Your task to perform on an android device: View the shopping cart on ebay.com. Search for "acer predator" on ebay.com, select the first entry, add it to the cart, then select checkout. Image 0: 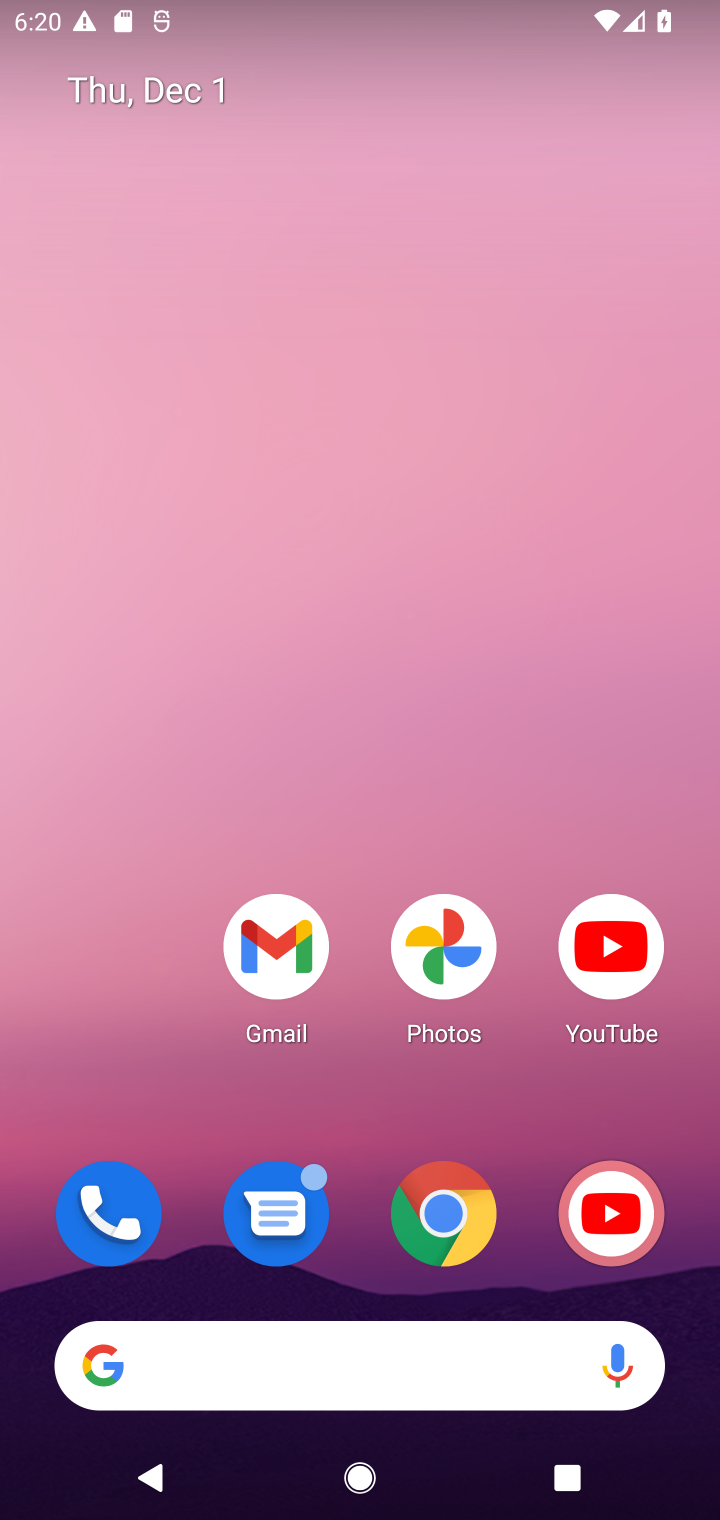
Step 0: click (407, 1351)
Your task to perform on an android device: View the shopping cart on ebay.com. Search for "acer predator" on ebay.com, select the first entry, add it to the cart, then select checkout. Image 1: 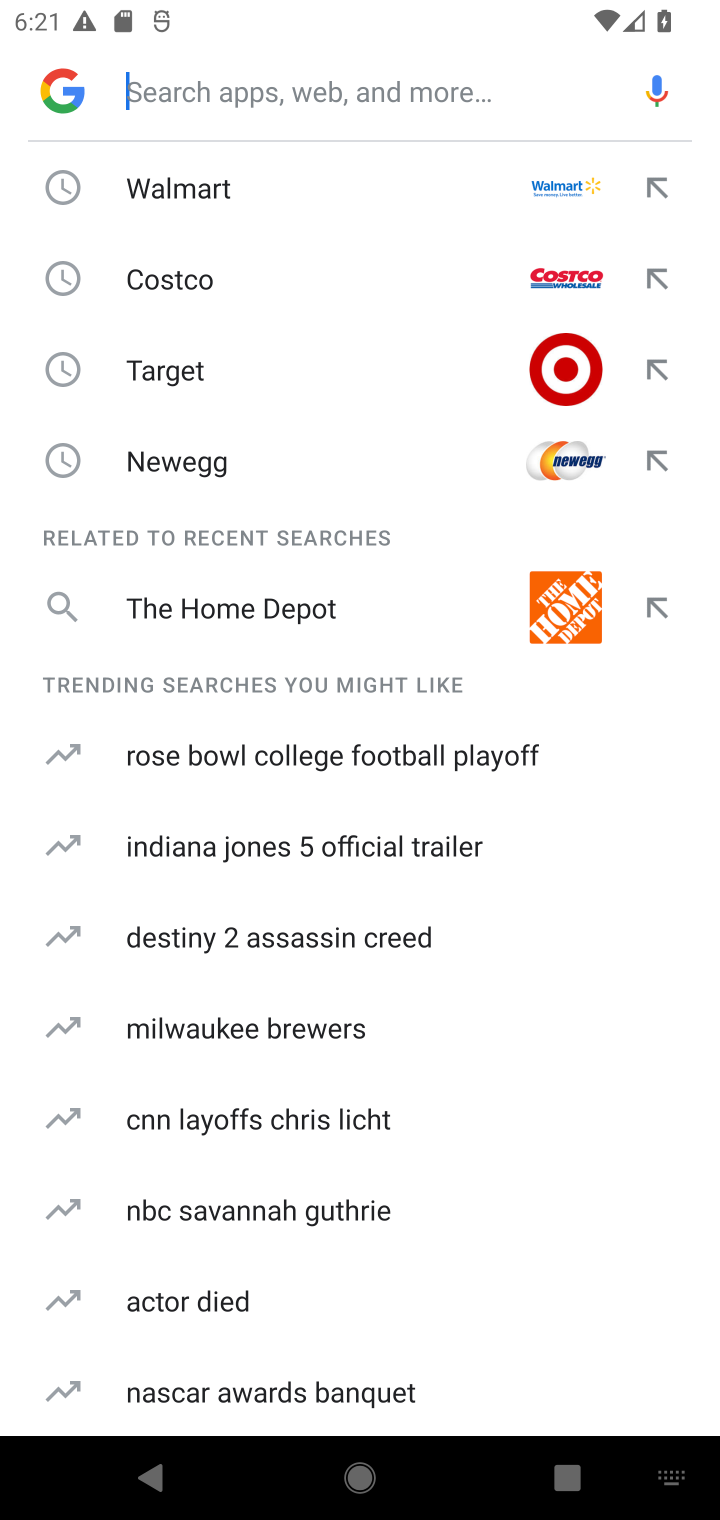
Step 1: type "ebay"
Your task to perform on an android device: View the shopping cart on ebay.com. Search for "acer predator" on ebay.com, select the first entry, add it to the cart, then select checkout. Image 2: 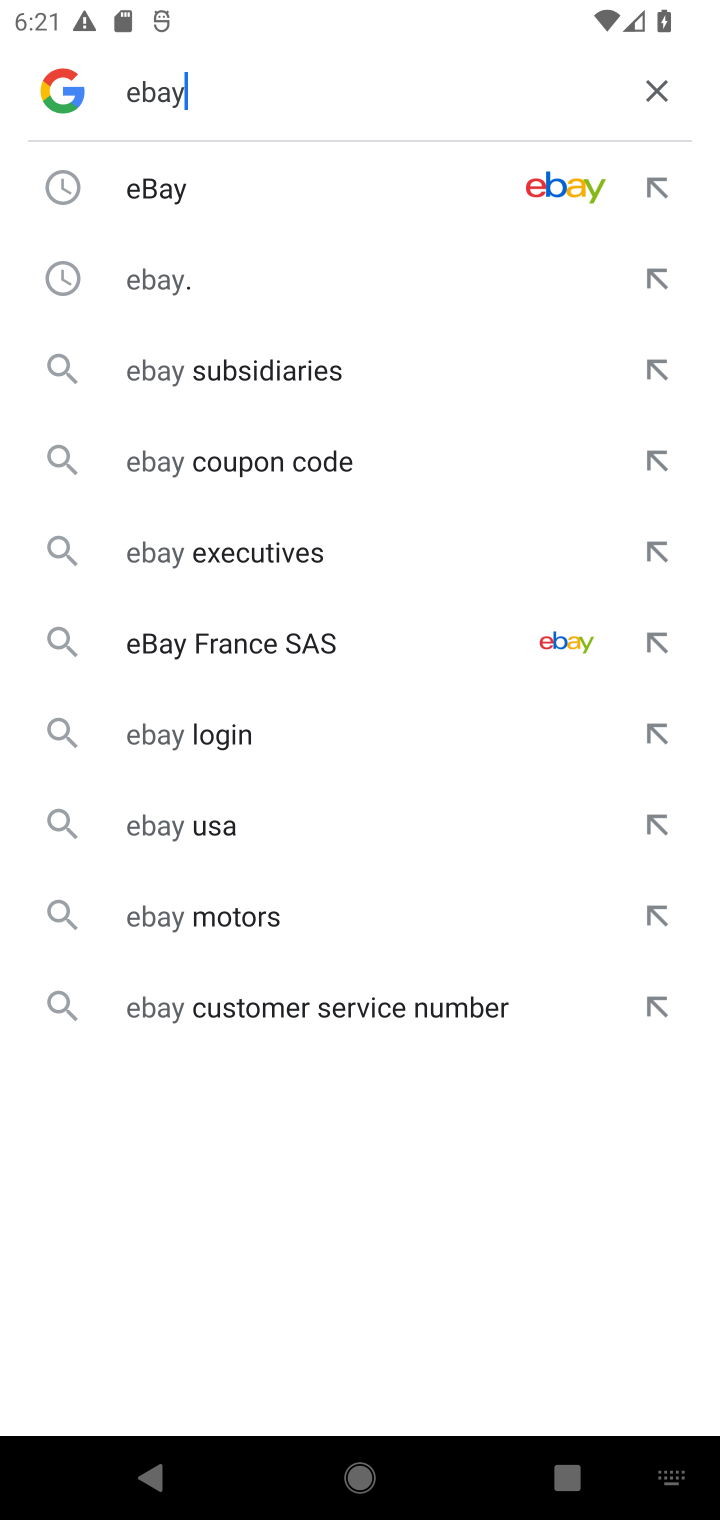
Step 2: click (424, 196)
Your task to perform on an android device: View the shopping cart on ebay.com. Search for "acer predator" on ebay.com, select the first entry, add it to the cart, then select checkout. Image 3: 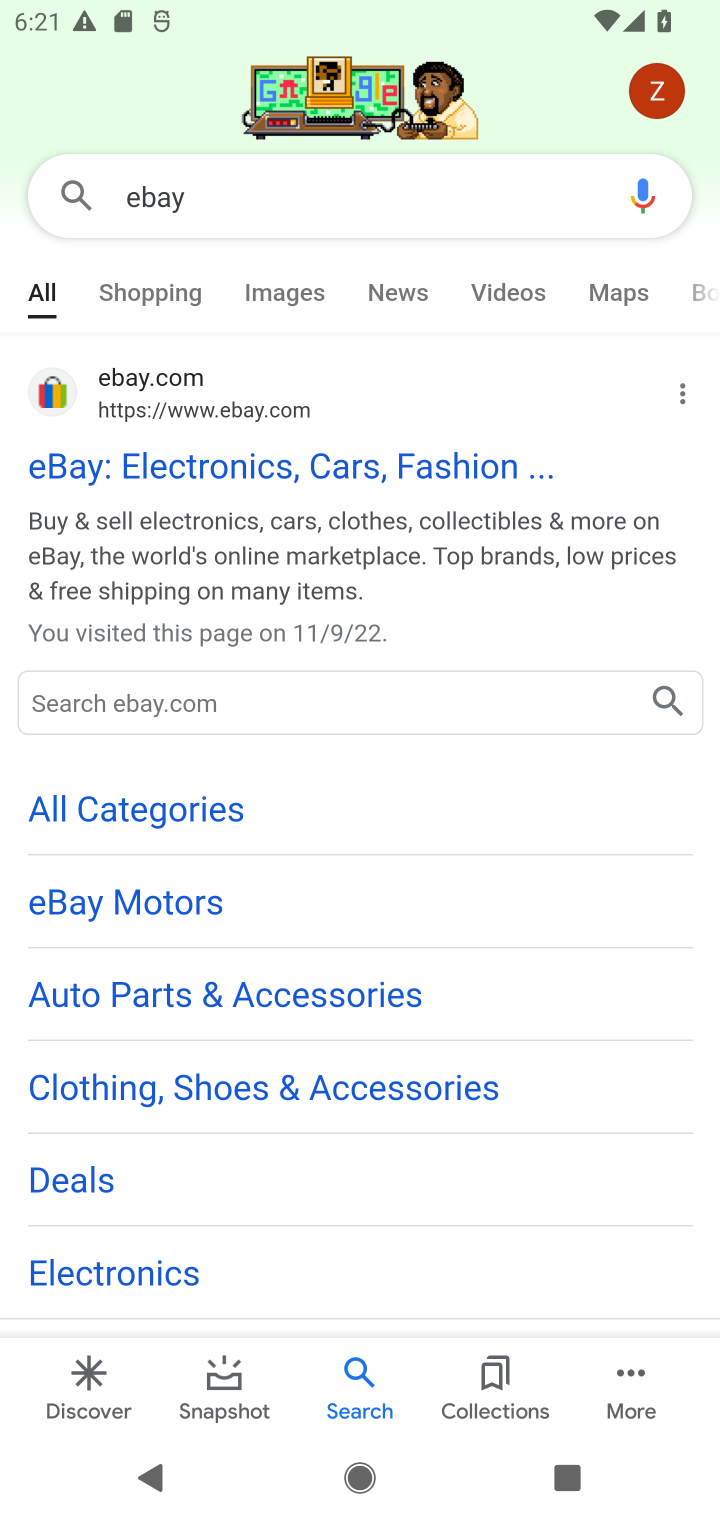
Step 3: click (281, 470)
Your task to perform on an android device: View the shopping cart on ebay.com. Search for "acer predator" on ebay.com, select the first entry, add it to the cart, then select checkout. Image 4: 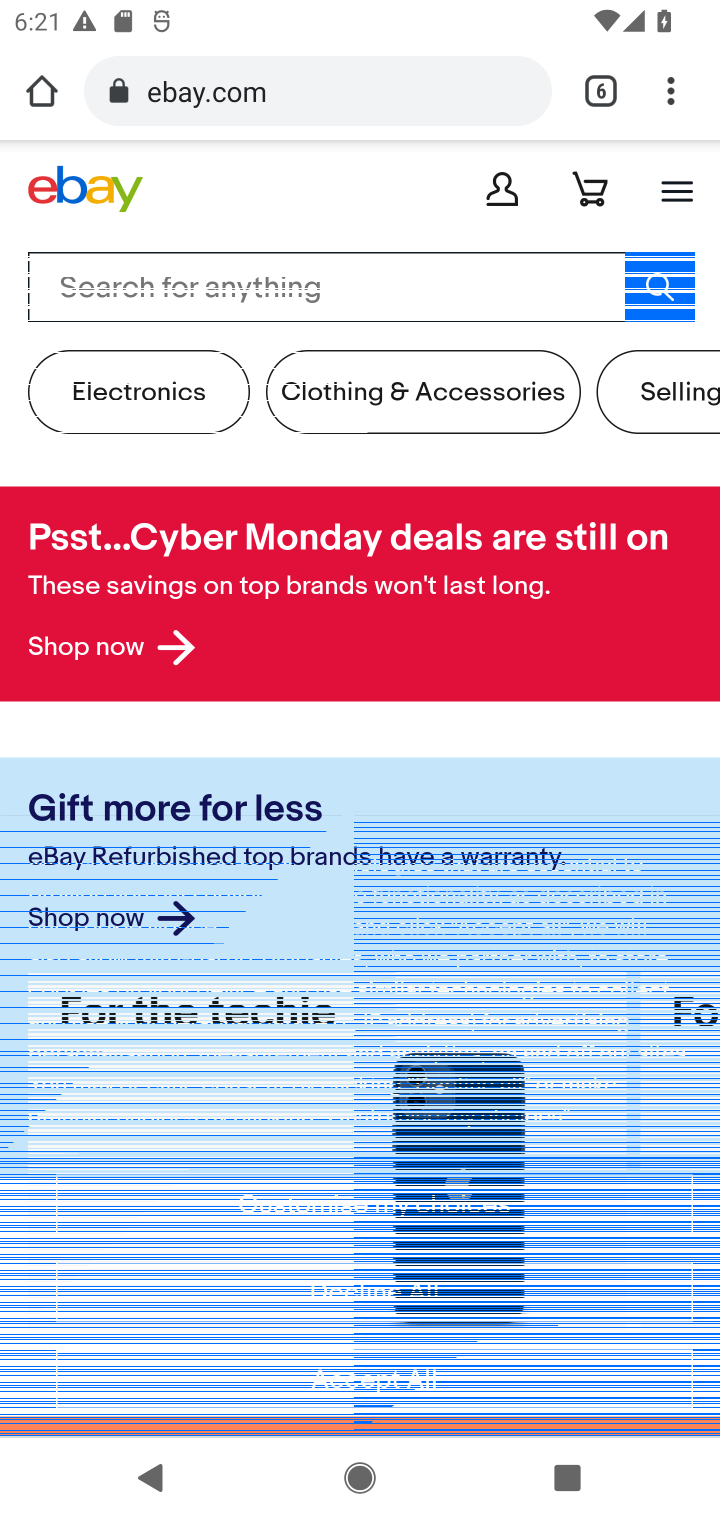
Step 4: click (375, 1386)
Your task to perform on an android device: View the shopping cart on ebay.com. Search for "acer predator" on ebay.com, select the first entry, add it to the cart, then select checkout. Image 5: 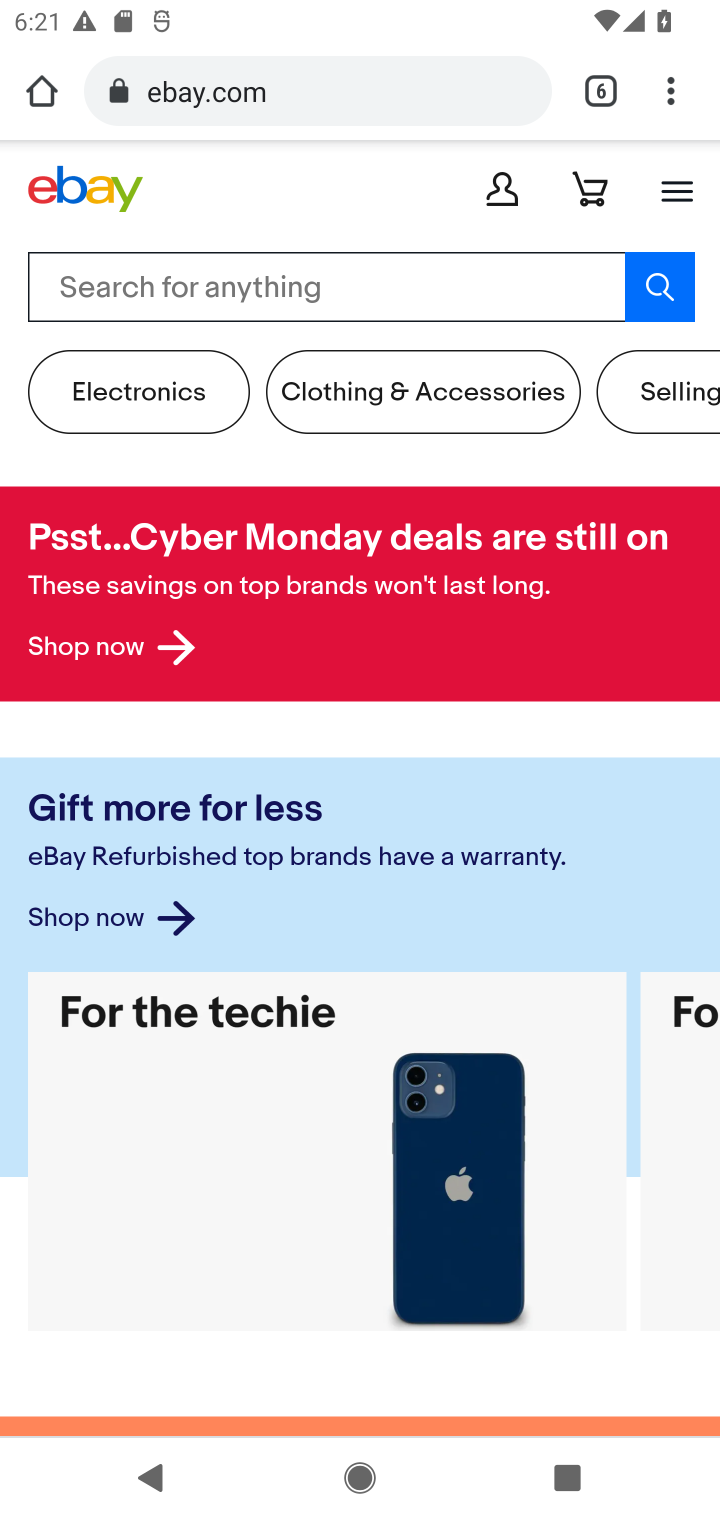
Step 5: task complete